Your task to perform on an android device: turn on translation in the chrome app Image 0: 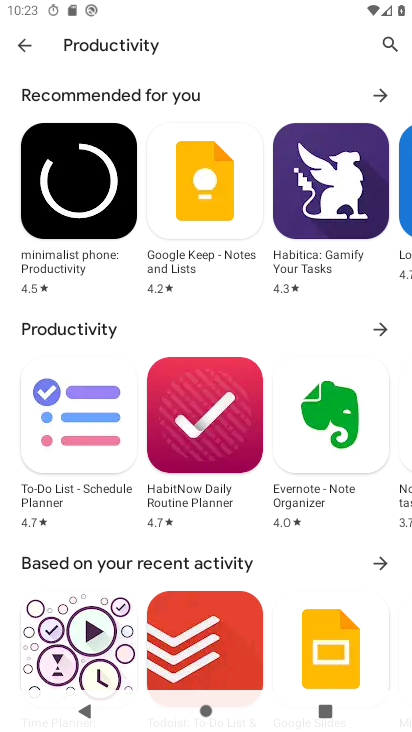
Step 0: press home button
Your task to perform on an android device: turn on translation in the chrome app Image 1: 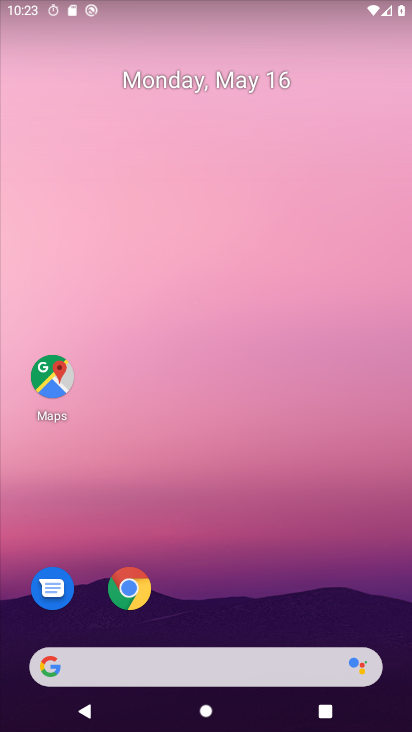
Step 1: click (141, 583)
Your task to perform on an android device: turn on translation in the chrome app Image 2: 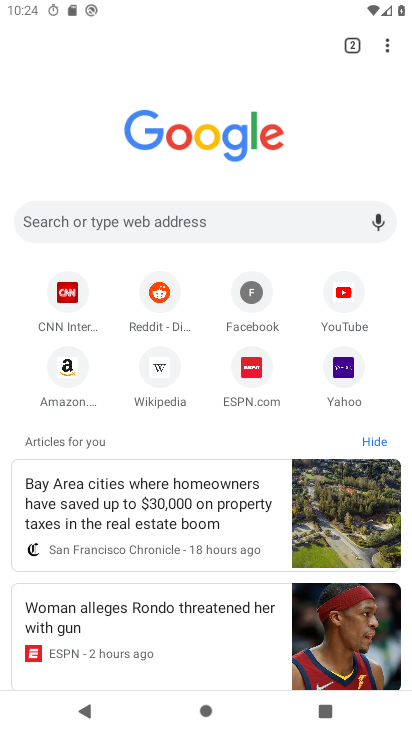
Step 2: click (385, 42)
Your task to perform on an android device: turn on translation in the chrome app Image 3: 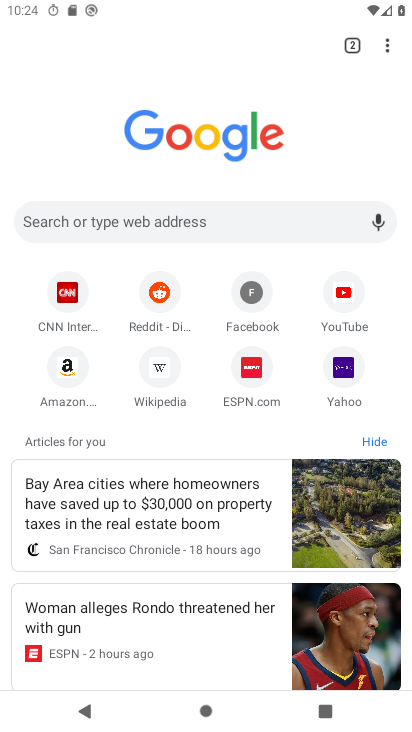
Step 3: click (393, 44)
Your task to perform on an android device: turn on translation in the chrome app Image 4: 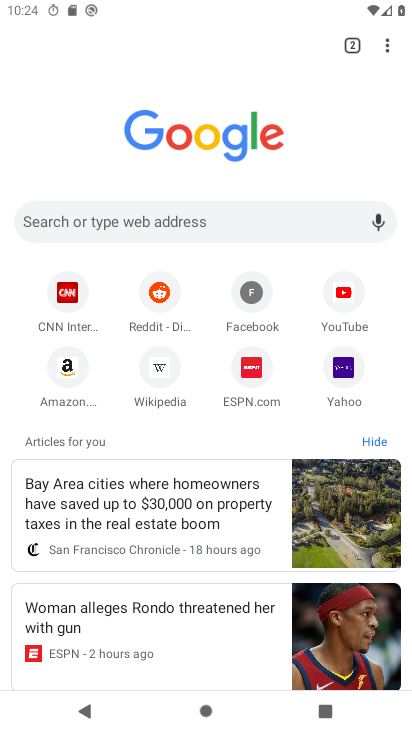
Step 4: click (387, 44)
Your task to perform on an android device: turn on translation in the chrome app Image 5: 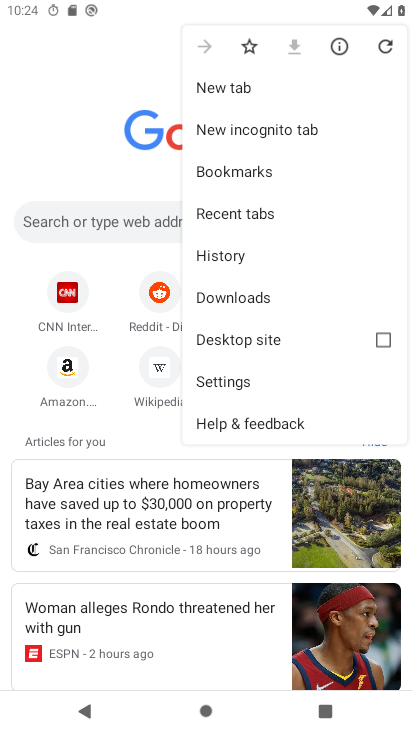
Step 5: click (249, 374)
Your task to perform on an android device: turn on translation in the chrome app Image 6: 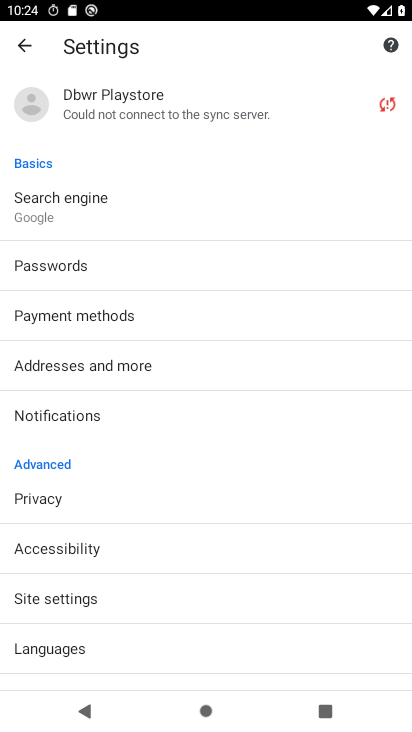
Step 6: click (115, 640)
Your task to perform on an android device: turn on translation in the chrome app Image 7: 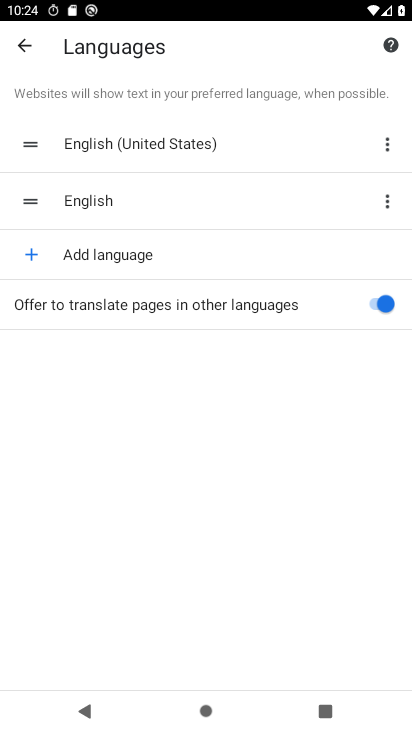
Step 7: task complete